Your task to perform on an android device: turn on the 12-hour format for clock Image 0: 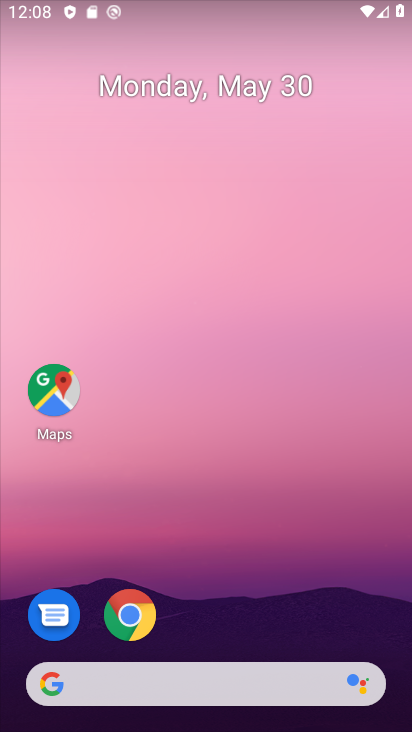
Step 0: drag from (232, 562) to (261, 39)
Your task to perform on an android device: turn on the 12-hour format for clock Image 1: 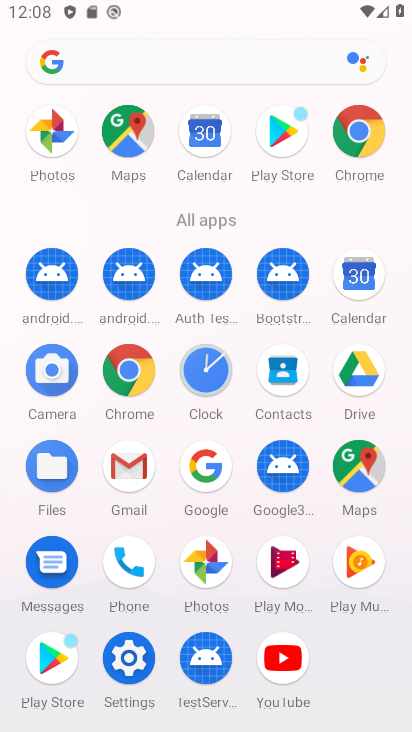
Step 1: click (205, 387)
Your task to perform on an android device: turn on the 12-hour format for clock Image 2: 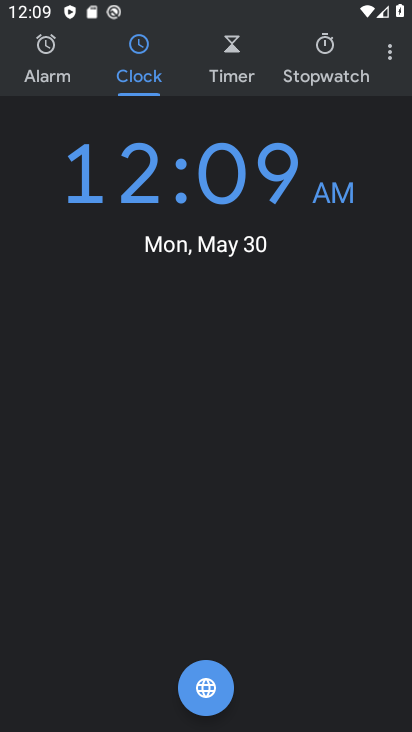
Step 2: drag from (390, 54) to (286, 106)
Your task to perform on an android device: turn on the 12-hour format for clock Image 3: 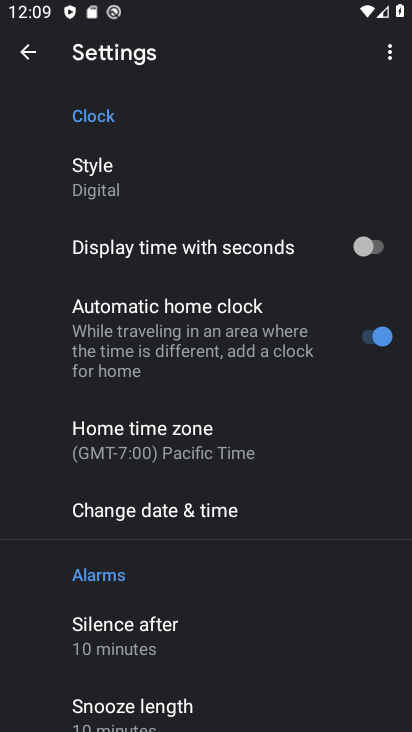
Step 3: click (164, 505)
Your task to perform on an android device: turn on the 12-hour format for clock Image 4: 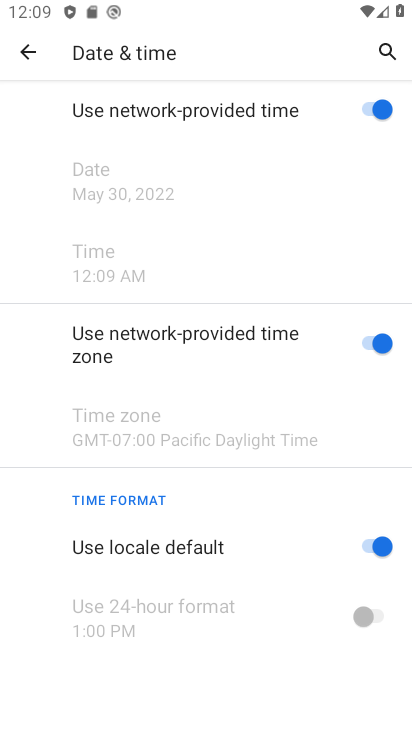
Step 4: task complete